Your task to perform on an android device: uninstall "Clock" Image 0: 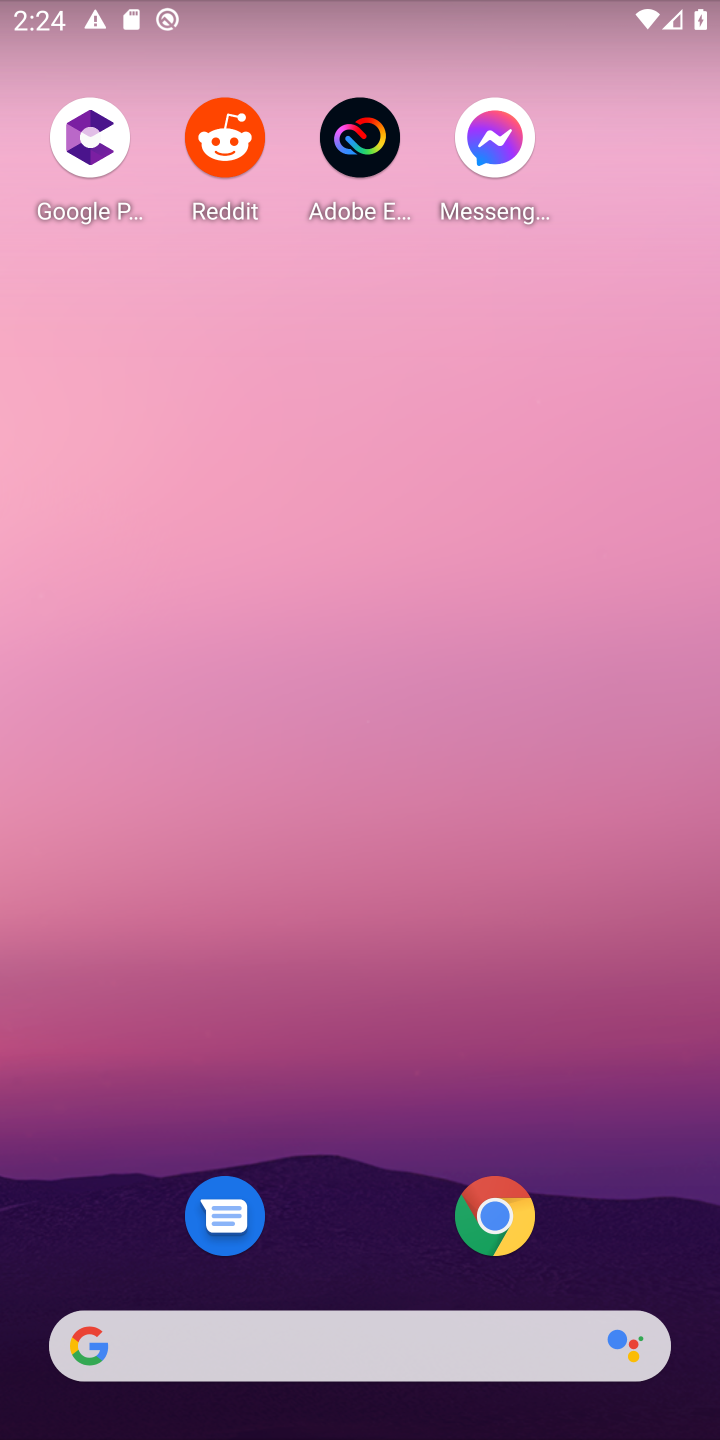
Step 0: drag from (658, 1250) to (609, 322)
Your task to perform on an android device: uninstall "Clock" Image 1: 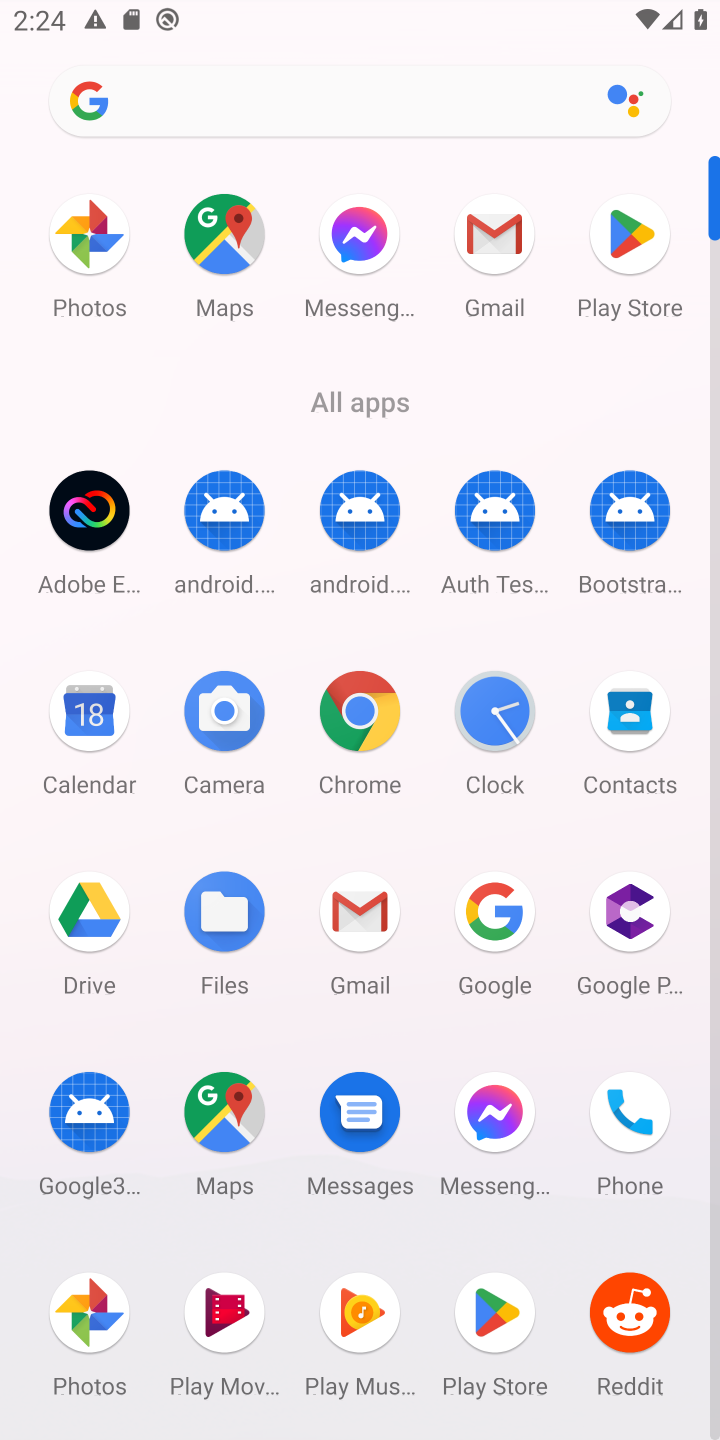
Step 1: drag from (492, 709) to (466, 140)
Your task to perform on an android device: uninstall "Clock" Image 2: 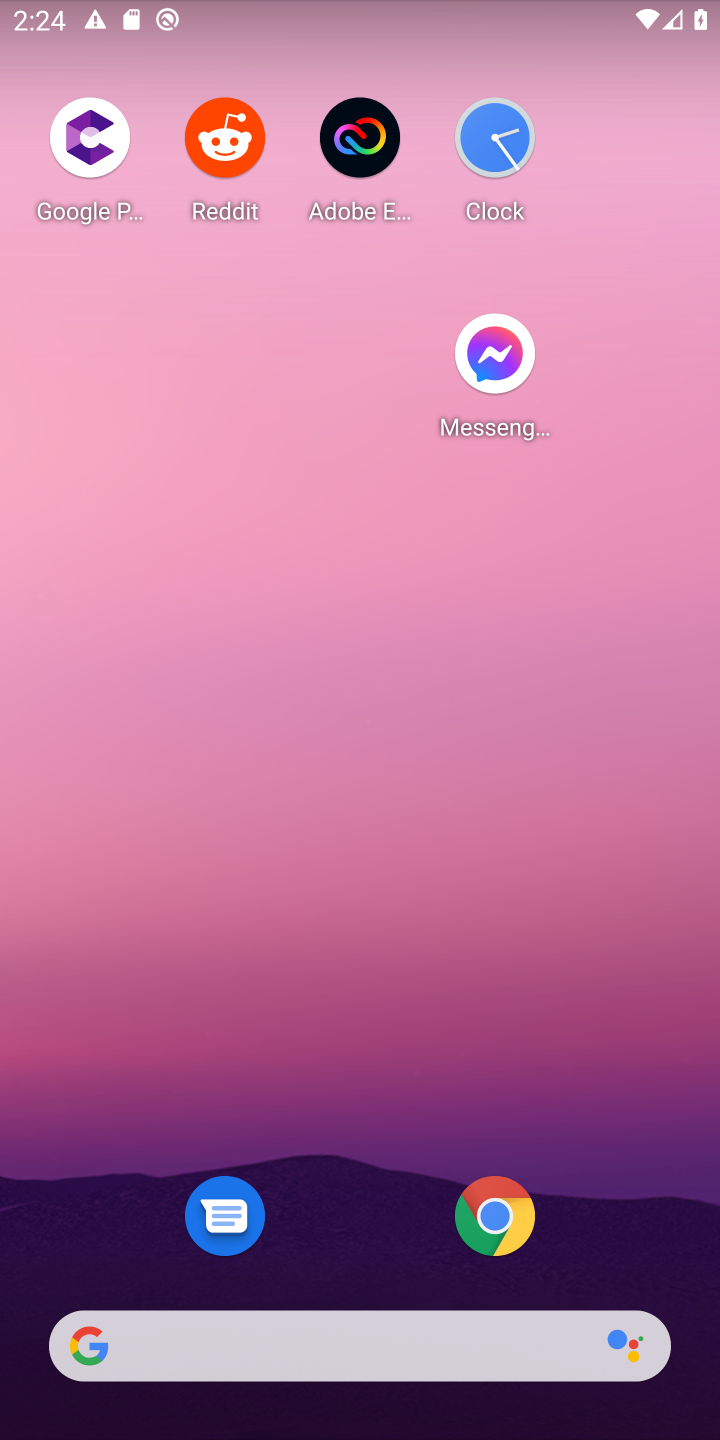
Step 2: click (488, 158)
Your task to perform on an android device: uninstall "Clock" Image 3: 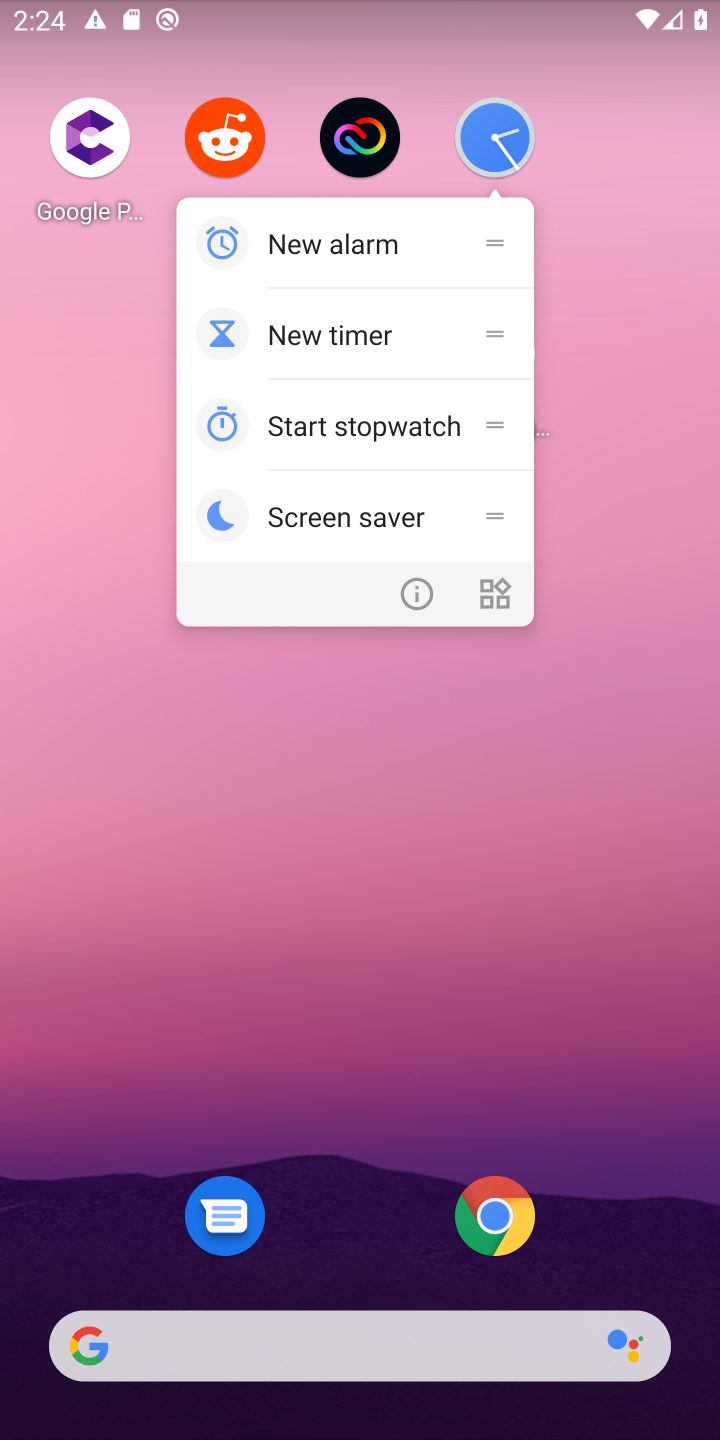
Step 3: click (418, 605)
Your task to perform on an android device: uninstall "Clock" Image 4: 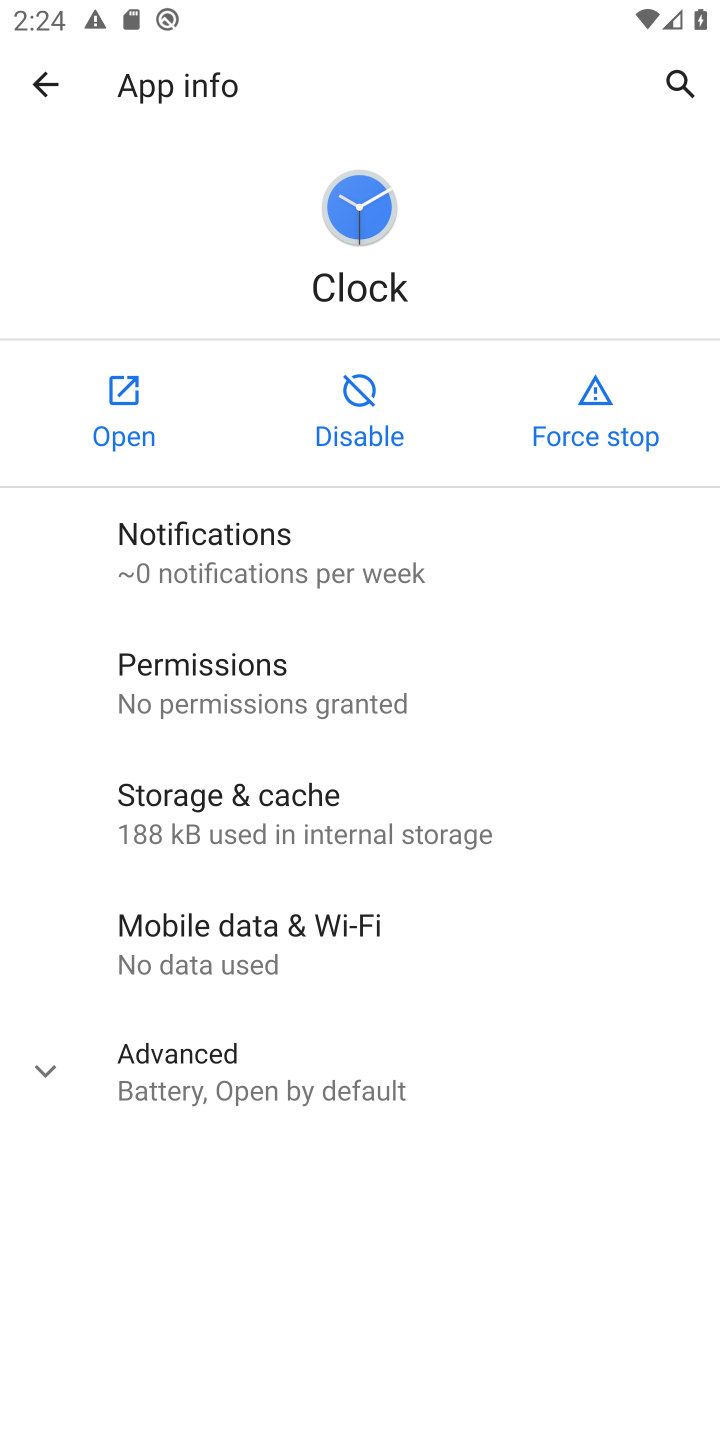
Step 4: click (370, 425)
Your task to perform on an android device: uninstall "Clock" Image 5: 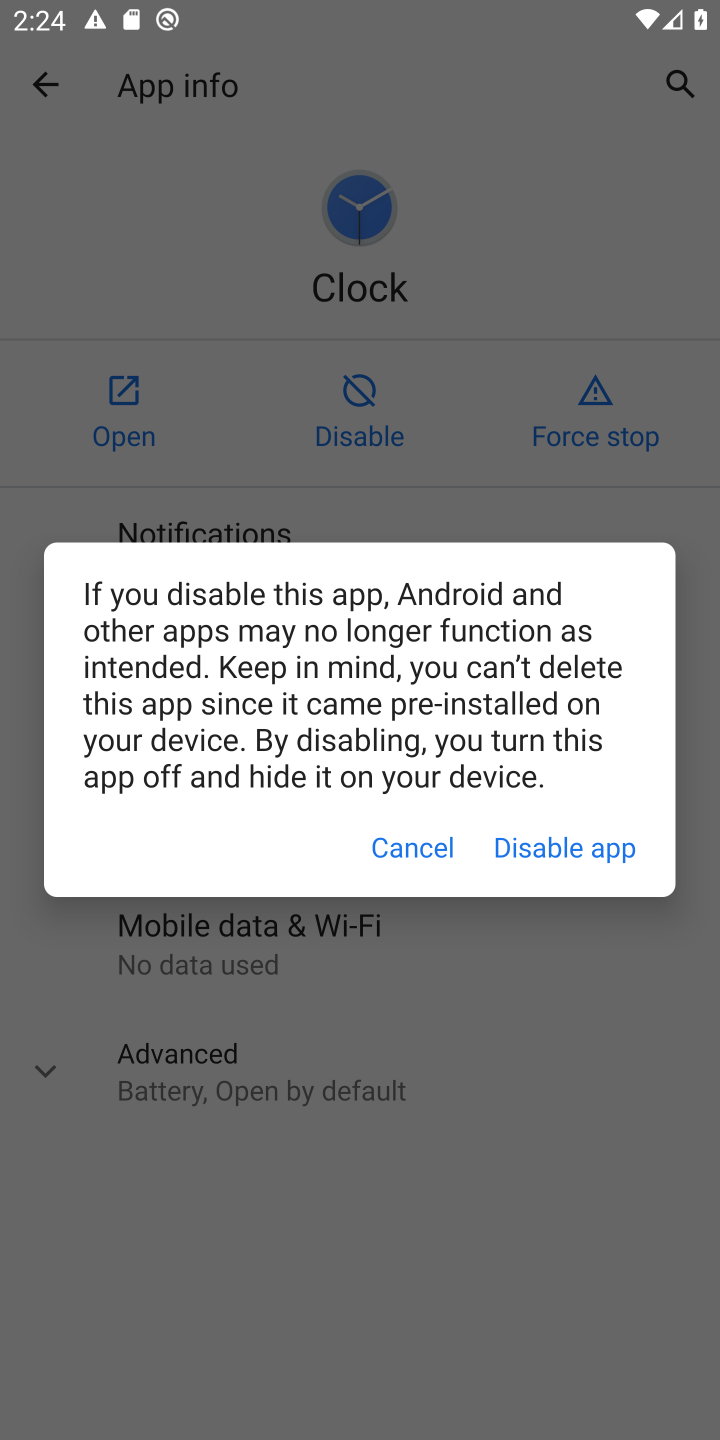
Step 5: task complete